Your task to perform on an android device: Open Google Chrome and open the bookmarks view Image 0: 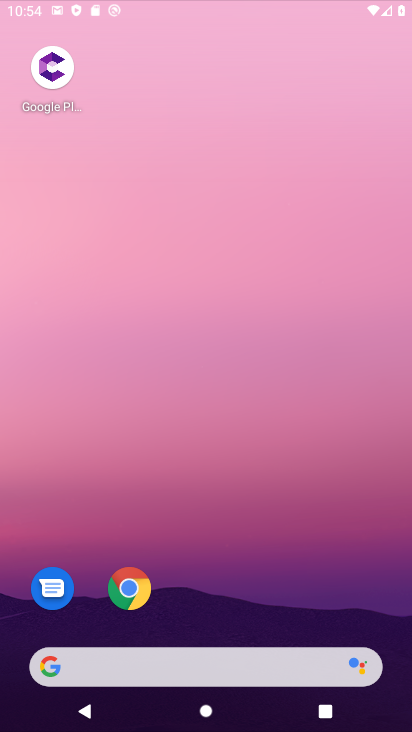
Step 0: drag from (172, 616) to (176, 83)
Your task to perform on an android device: Open Google Chrome and open the bookmarks view Image 1: 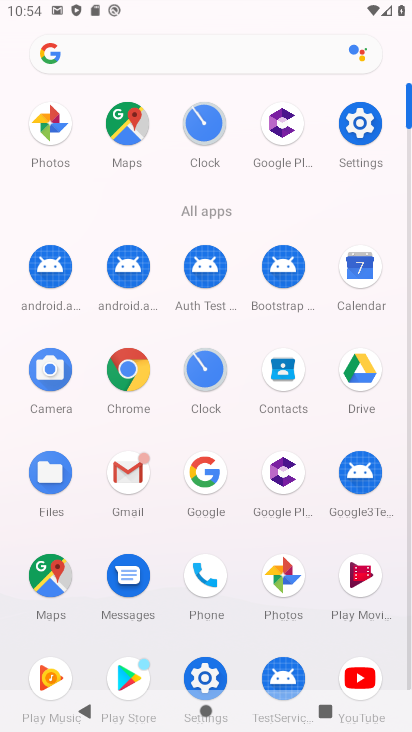
Step 1: click (132, 379)
Your task to perform on an android device: Open Google Chrome and open the bookmarks view Image 2: 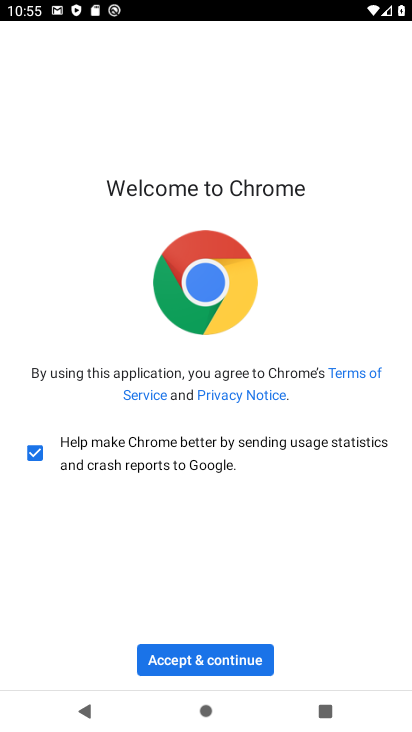
Step 2: click (204, 669)
Your task to perform on an android device: Open Google Chrome and open the bookmarks view Image 3: 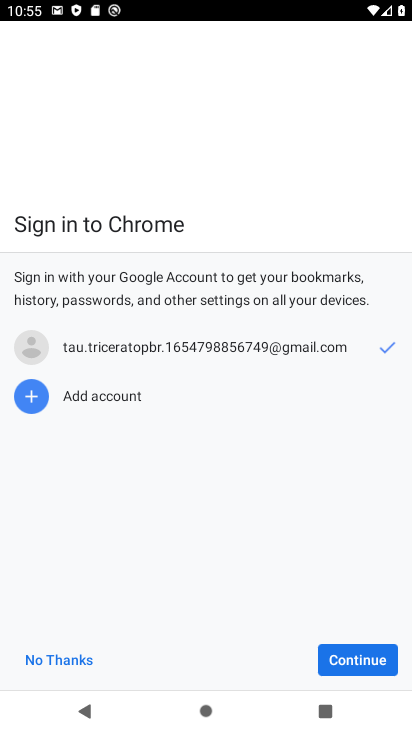
Step 3: click (344, 666)
Your task to perform on an android device: Open Google Chrome and open the bookmarks view Image 4: 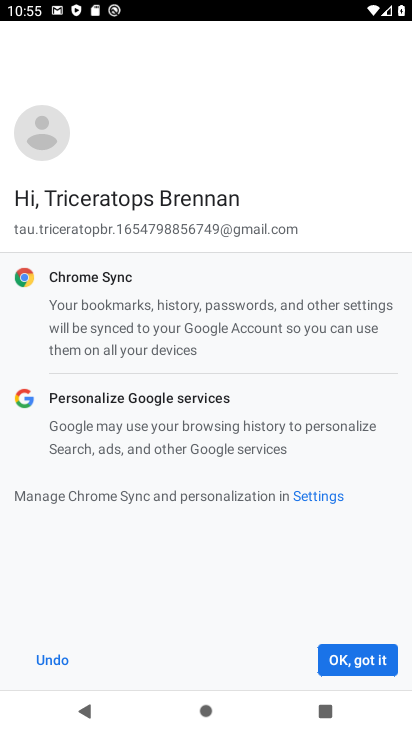
Step 4: click (339, 659)
Your task to perform on an android device: Open Google Chrome and open the bookmarks view Image 5: 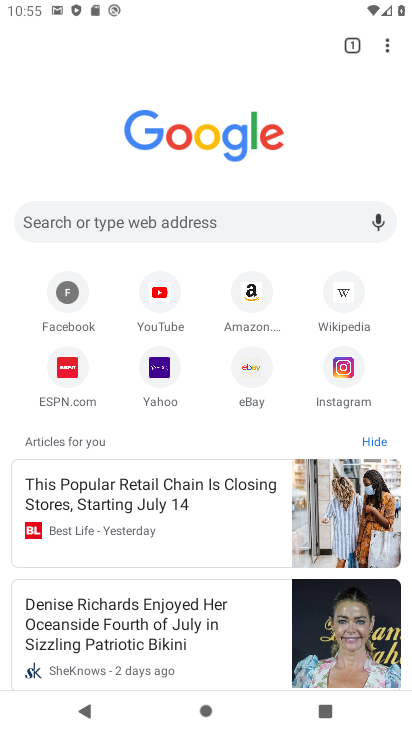
Step 5: click (386, 43)
Your task to perform on an android device: Open Google Chrome and open the bookmarks view Image 6: 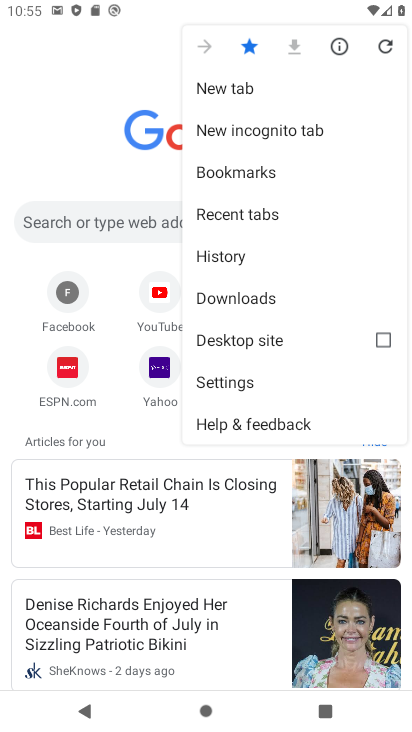
Step 6: click (219, 173)
Your task to perform on an android device: Open Google Chrome and open the bookmarks view Image 7: 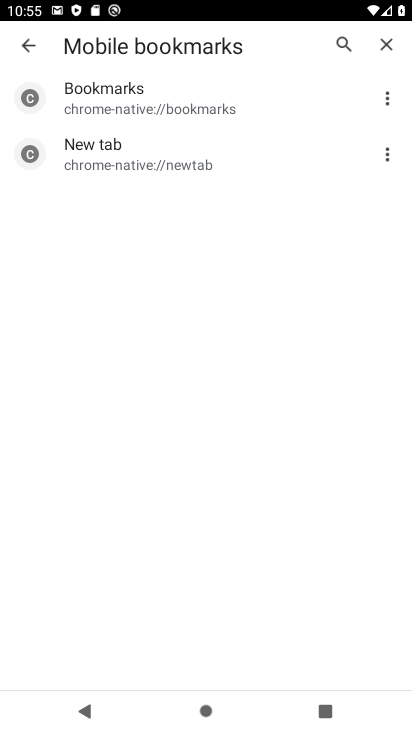
Step 7: click (227, 479)
Your task to perform on an android device: Open Google Chrome and open the bookmarks view Image 8: 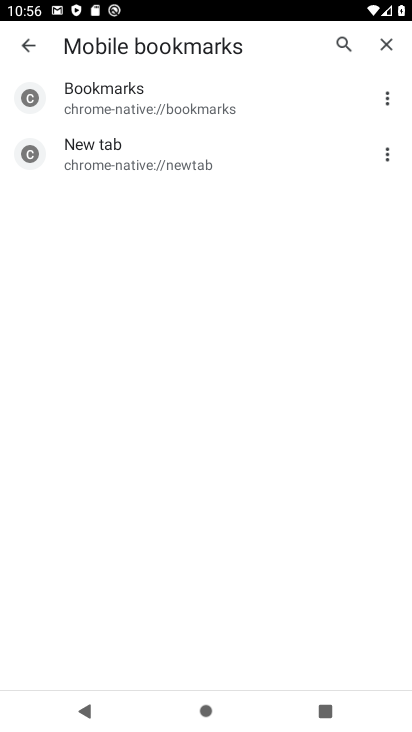
Step 8: task complete